Your task to perform on an android device: change the clock style Image 0: 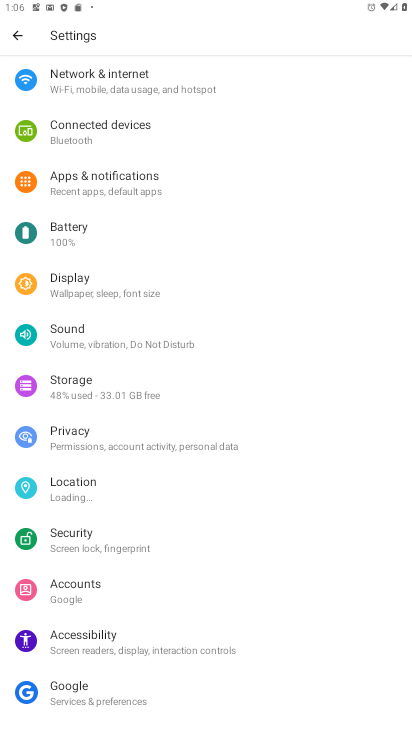
Step 0: press home button
Your task to perform on an android device: change the clock style Image 1: 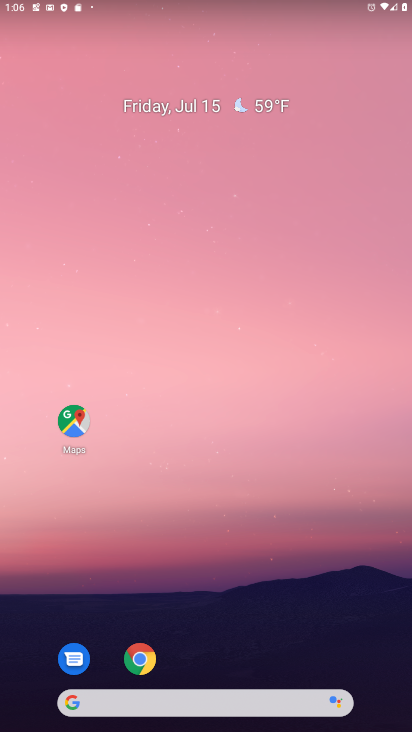
Step 1: drag from (241, 699) to (210, 424)
Your task to perform on an android device: change the clock style Image 2: 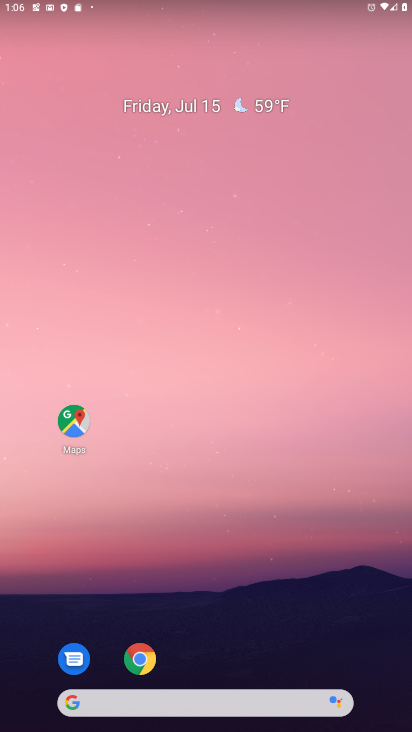
Step 2: drag from (236, 728) to (252, 117)
Your task to perform on an android device: change the clock style Image 3: 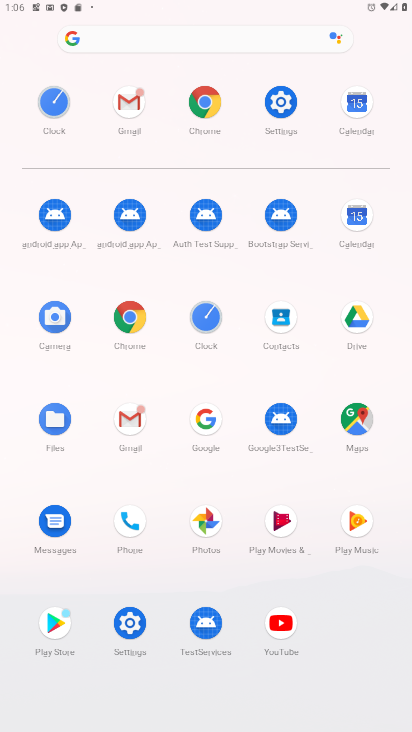
Step 3: click (208, 318)
Your task to perform on an android device: change the clock style Image 4: 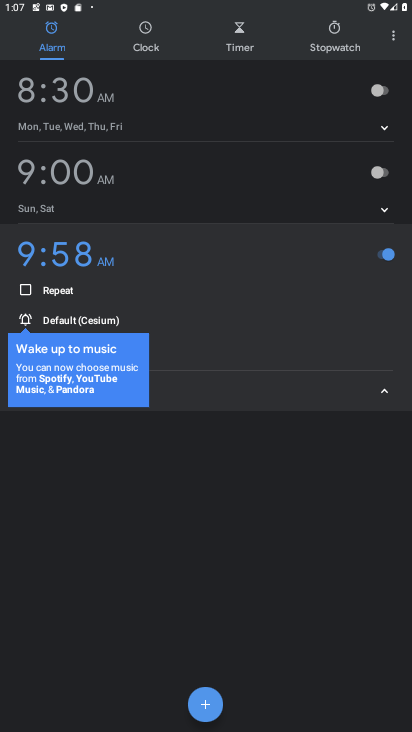
Step 4: click (140, 27)
Your task to perform on an android device: change the clock style Image 5: 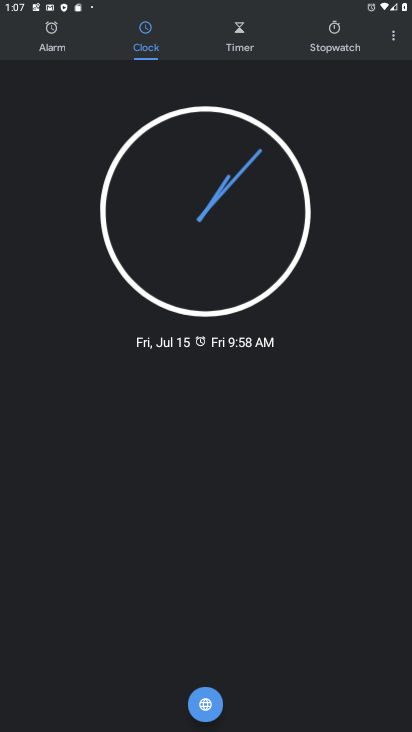
Step 5: click (389, 35)
Your task to perform on an android device: change the clock style Image 6: 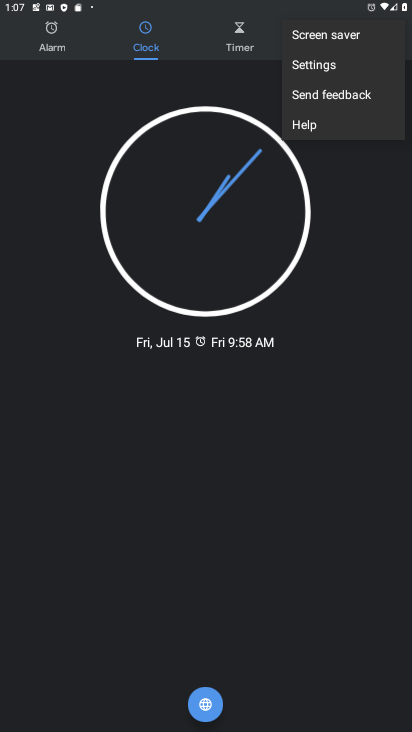
Step 6: click (320, 60)
Your task to perform on an android device: change the clock style Image 7: 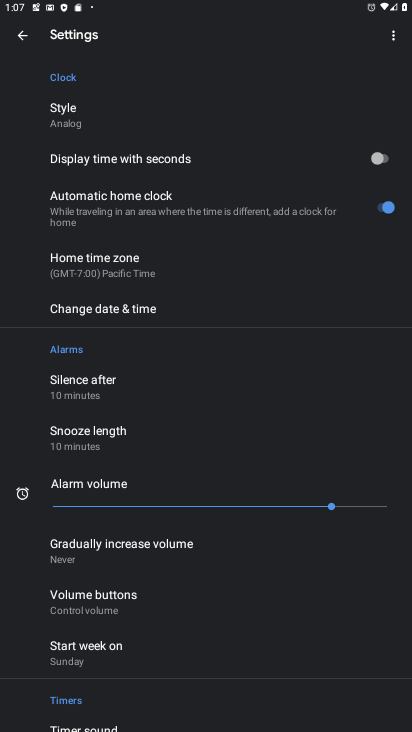
Step 7: click (74, 116)
Your task to perform on an android device: change the clock style Image 8: 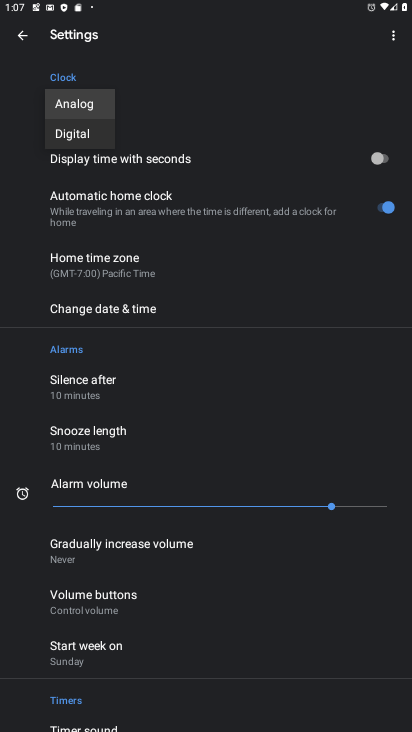
Step 8: click (77, 131)
Your task to perform on an android device: change the clock style Image 9: 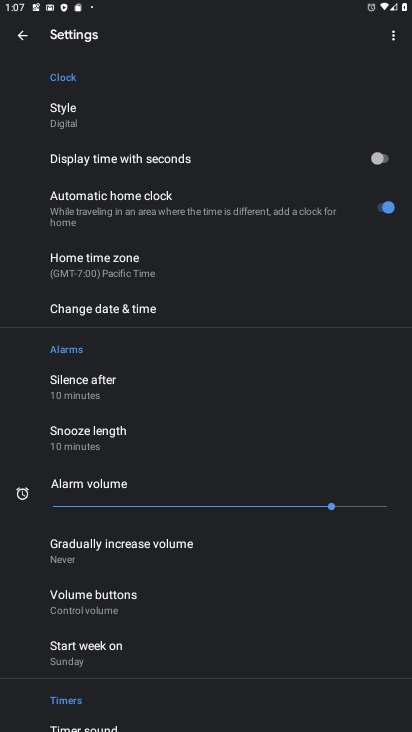
Step 9: task complete